Your task to perform on an android device: Open Google Chrome and open the bookmarks view Image 0: 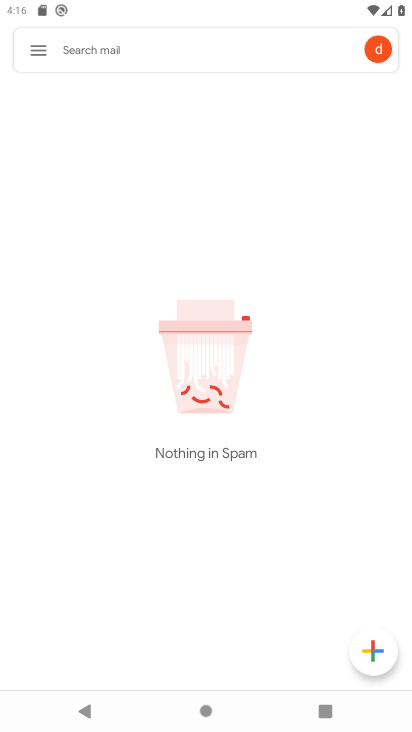
Step 0: press home button
Your task to perform on an android device: Open Google Chrome and open the bookmarks view Image 1: 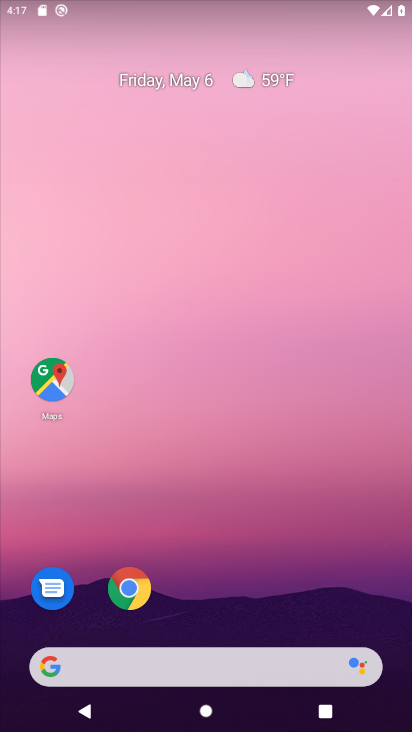
Step 1: click (126, 586)
Your task to perform on an android device: Open Google Chrome and open the bookmarks view Image 2: 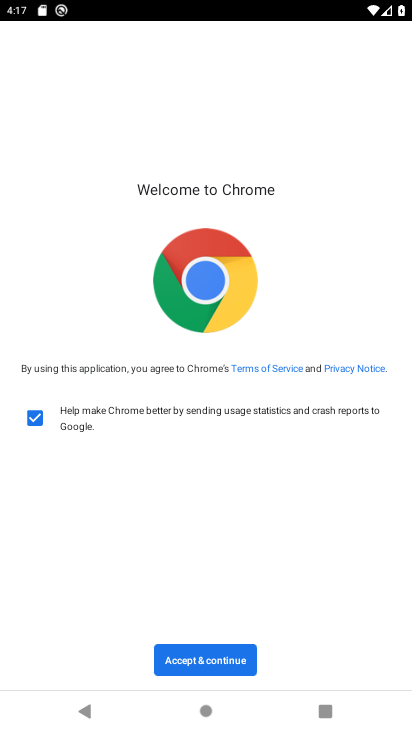
Step 2: click (217, 664)
Your task to perform on an android device: Open Google Chrome and open the bookmarks view Image 3: 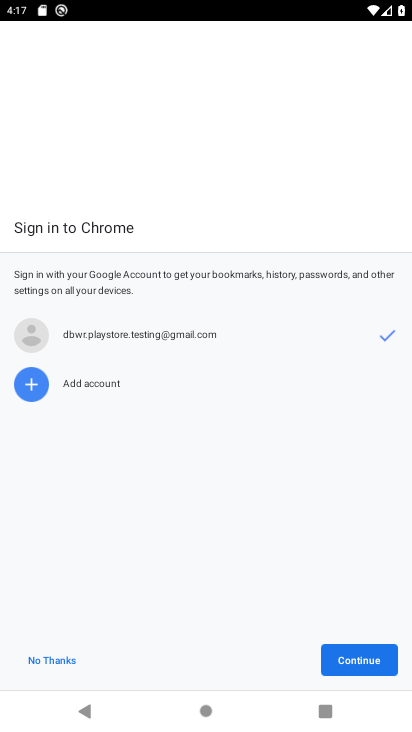
Step 3: click (341, 662)
Your task to perform on an android device: Open Google Chrome and open the bookmarks view Image 4: 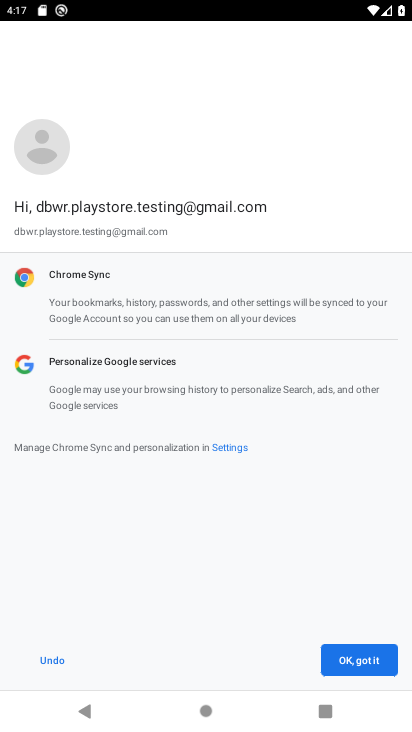
Step 4: click (357, 662)
Your task to perform on an android device: Open Google Chrome and open the bookmarks view Image 5: 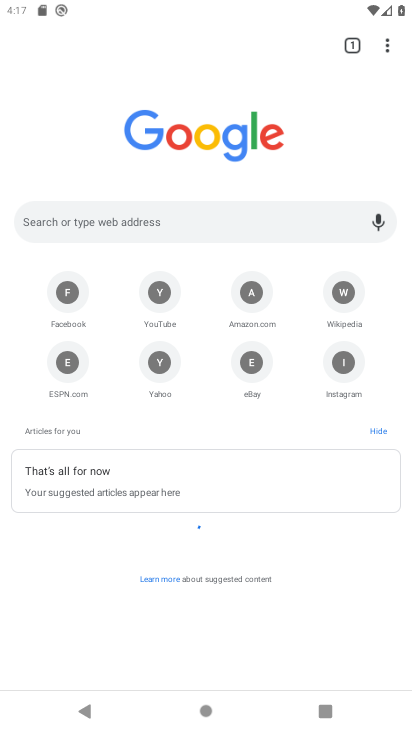
Step 5: click (384, 45)
Your task to perform on an android device: Open Google Chrome and open the bookmarks view Image 6: 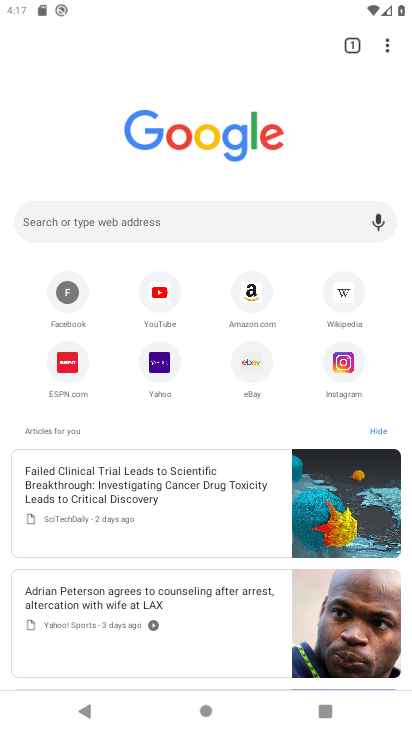
Step 6: click (230, 177)
Your task to perform on an android device: Open Google Chrome and open the bookmarks view Image 7: 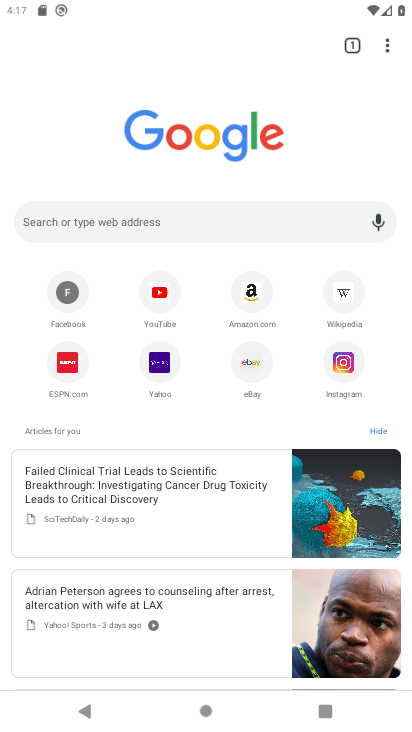
Step 7: task complete